Your task to perform on an android device: Open notification settings Image 0: 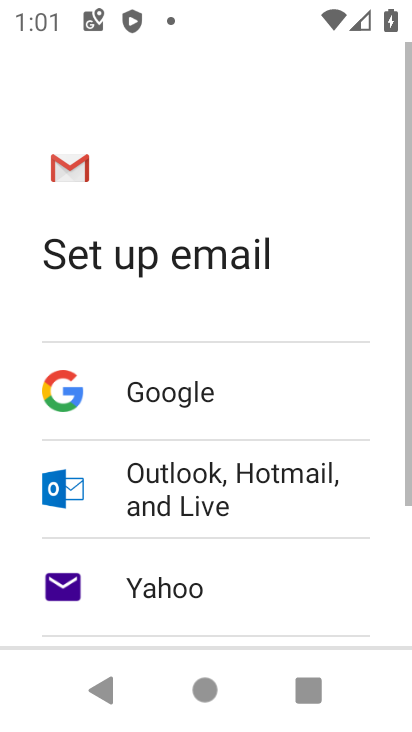
Step 0: press home button
Your task to perform on an android device: Open notification settings Image 1: 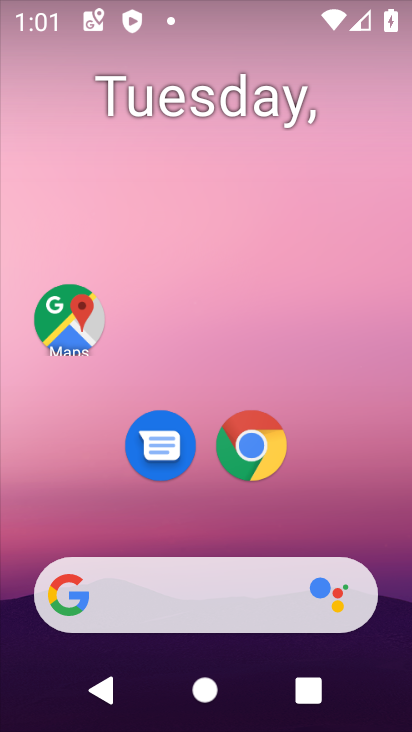
Step 1: drag from (320, 501) to (277, 69)
Your task to perform on an android device: Open notification settings Image 2: 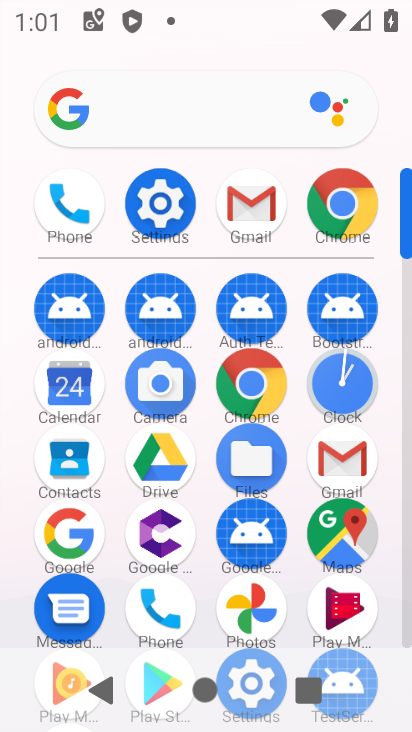
Step 2: click (173, 208)
Your task to perform on an android device: Open notification settings Image 3: 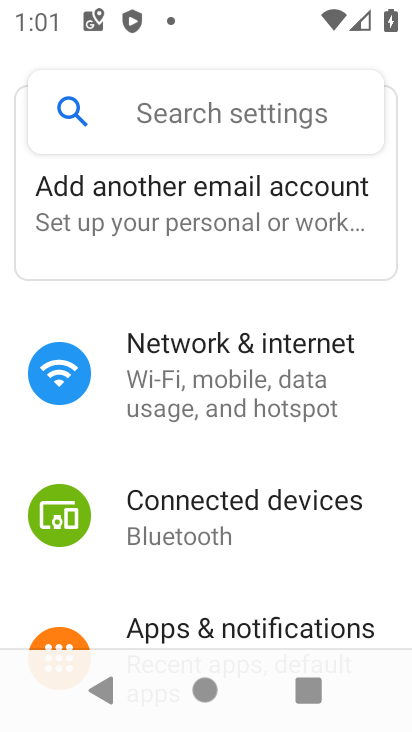
Step 3: drag from (262, 577) to (309, 240)
Your task to perform on an android device: Open notification settings Image 4: 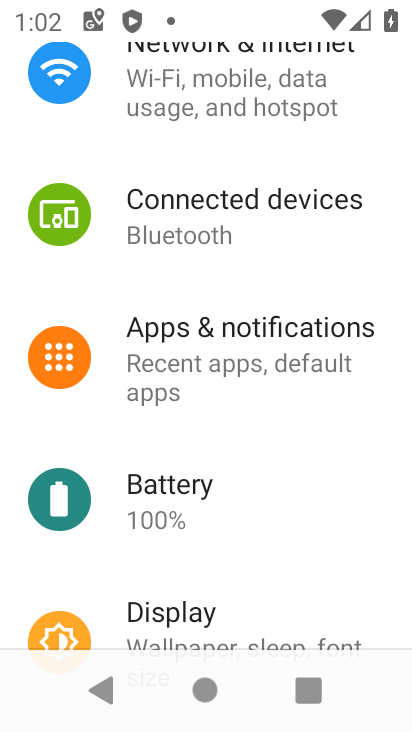
Step 4: click (295, 335)
Your task to perform on an android device: Open notification settings Image 5: 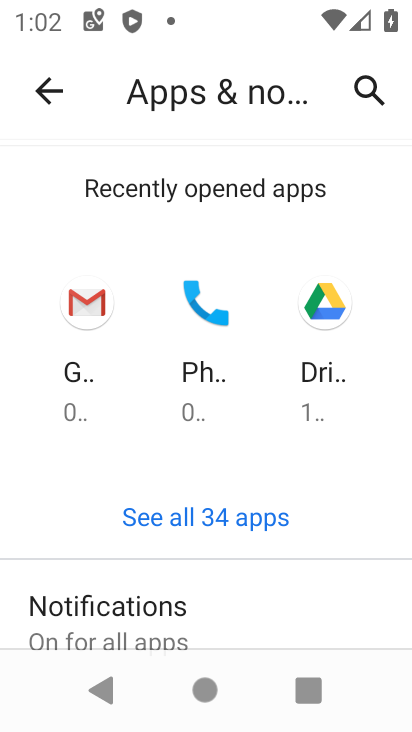
Step 5: drag from (282, 632) to (303, 303)
Your task to perform on an android device: Open notification settings Image 6: 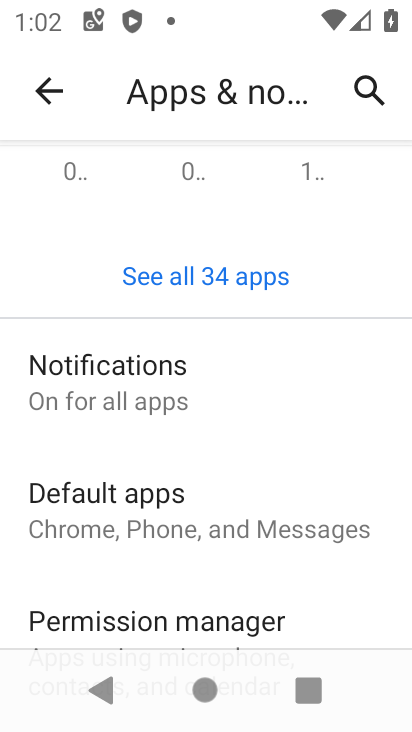
Step 6: click (120, 384)
Your task to perform on an android device: Open notification settings Image 7: 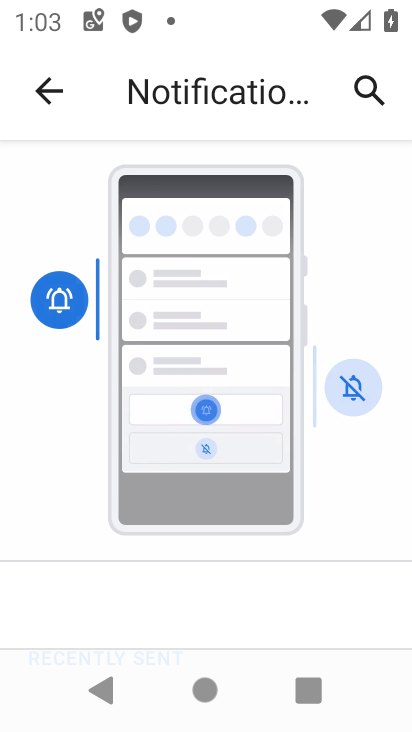
Step 7: task complete